Your task to perform on an android device: Open Google Chrome and open the bookmarks view Image 0: 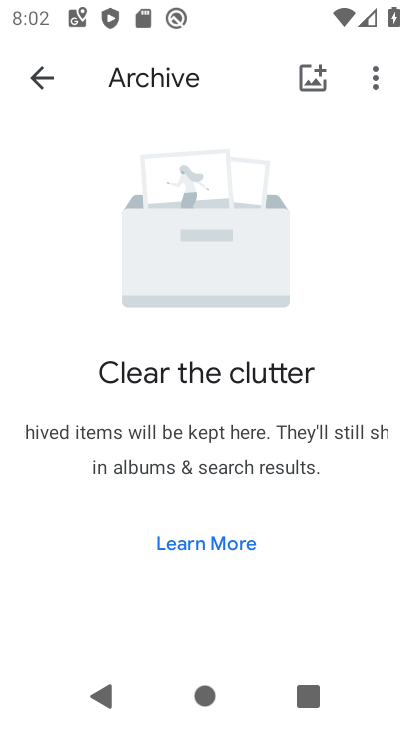
Step 0: press back button
Your task to perform on an android device: Open Google Chrome and open the bookmarks view Image 1: 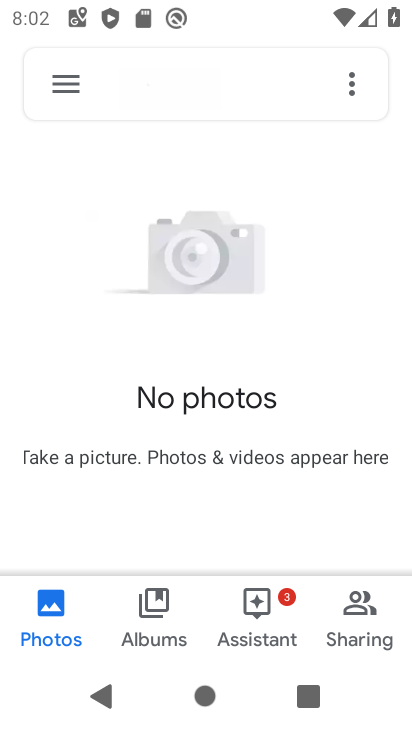
Step 1: press back button
Your task to perform on an android device: Open Google Chrome and open the bookmarks view Image 2: 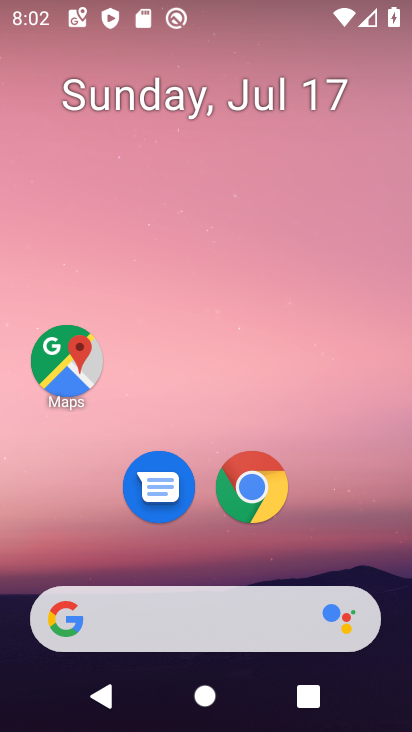
Step 2: click (260, 488)
Your task to perform on an android device: Open Google Chrome and open the bookmarks view Image 3: 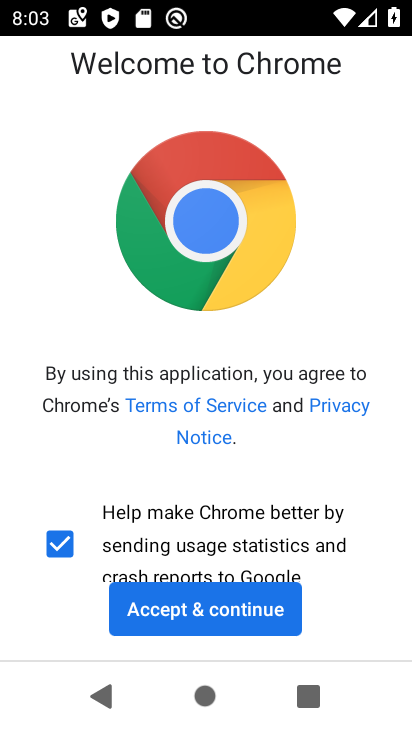
Step 3: click (220, 598)
Your task to perform on an android device: Open Google Chrome and open the bookmarks view Image 4: 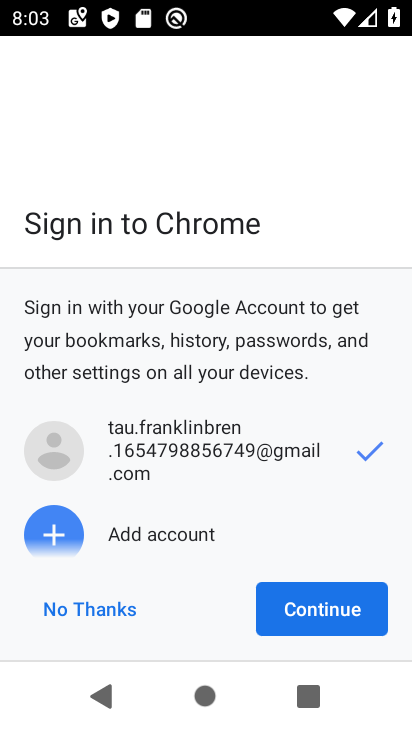
Step 4: click (314, 604)
Your task to perform on an android device: Open Google Chrome and open the bookmarks view Image 5: 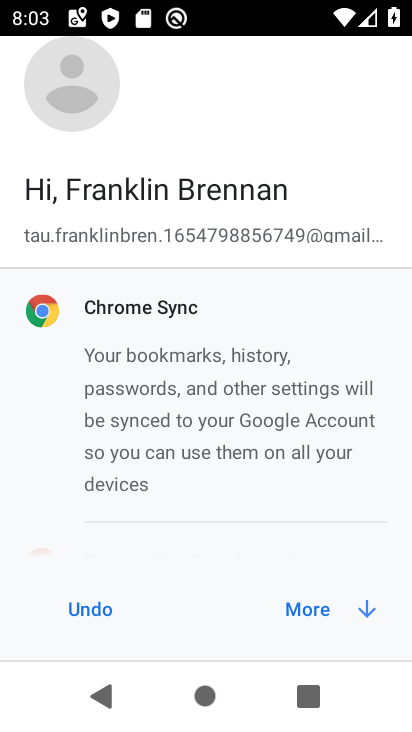
Step 5: click (308, 599)
Your task to perform on an android device: Open Google Chrome and open the bookmarks view Image 6: 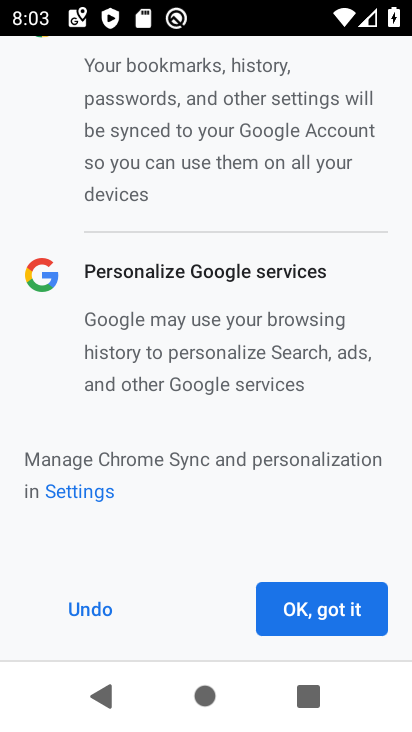
Step 6: click (310, 602)
Your task to perform on an android device: Open Google Chrome and open the bookmarks view Image 7: 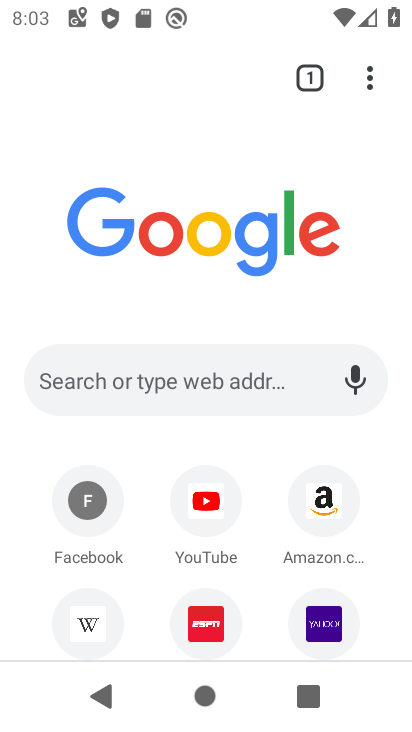
Step 7: task complete